Your task to perform on an android device: see tabs open on other devices in the chrome app Image 0: 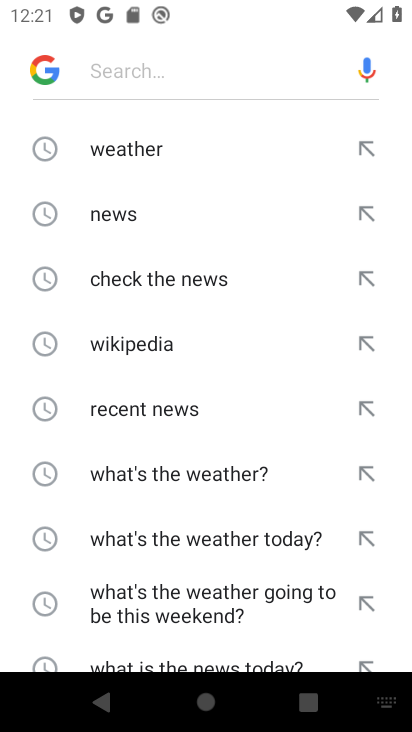
Step 0: press back button
Your task to perform on an android device: see tabs open on other devices in the chrome app Image 1: 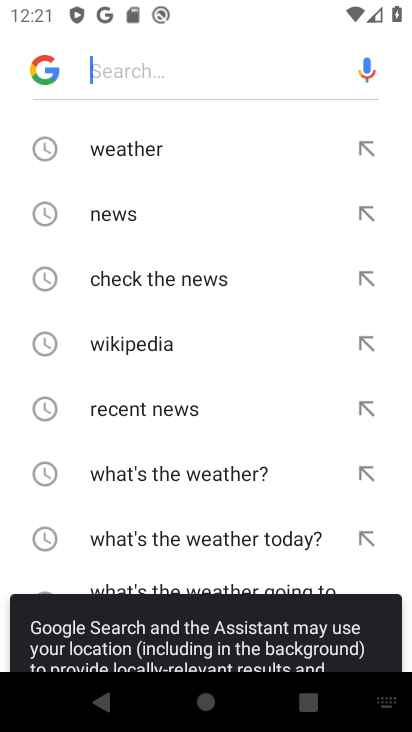
Step 1: press back button
Your task to perform on an android device: see tabs open on other devices in the chrome app Image 2: 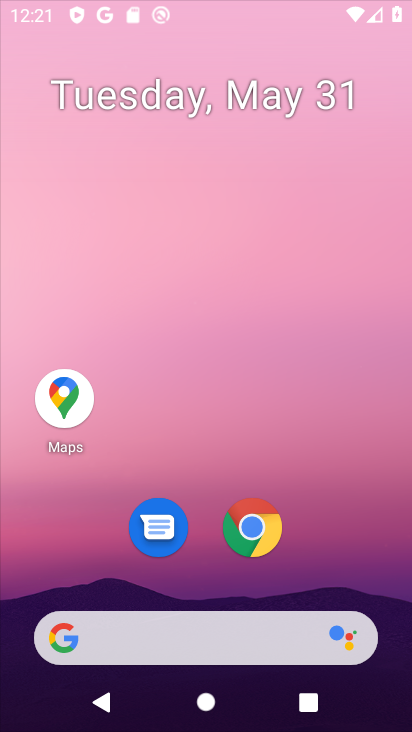
Step 2: press back button
Your task to perform on an android device: see tabs open on other devices in the chrome app Image 3: 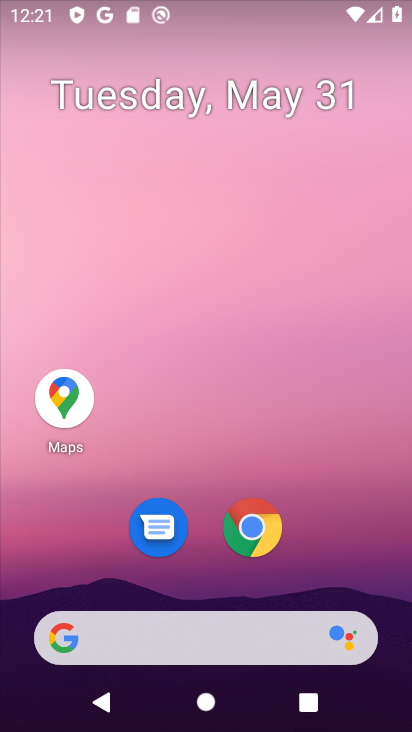
Step 3: press home button
Your task to perform on an android device: see tabs open on other devices in the chrome app Image 4: 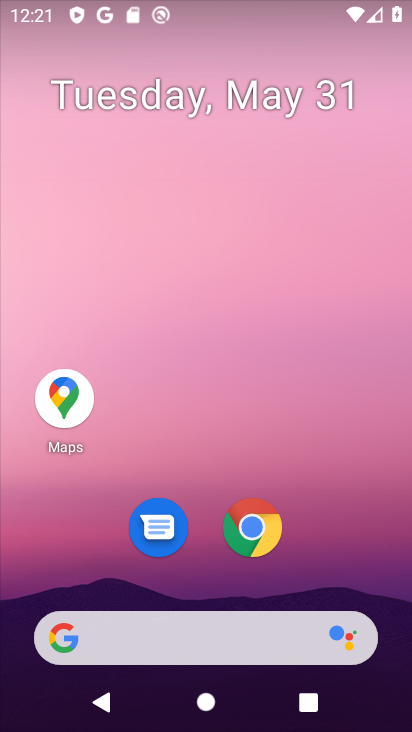
Step 4: press home button
Your task to perform on an android device: see tabs open on other devices in the chrome app Image 5: 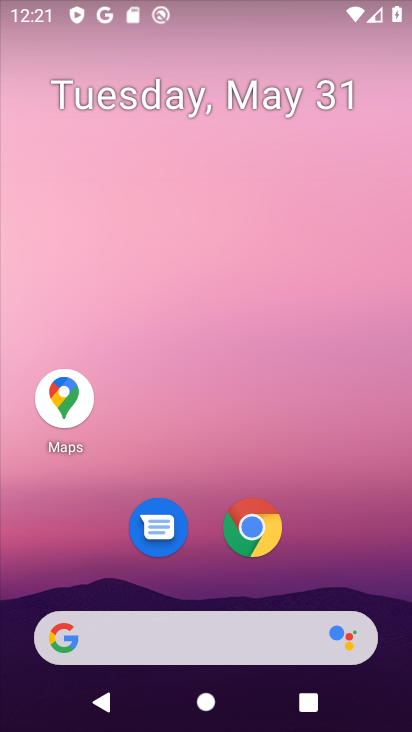
Step 5: press home button
Your task to perform on an android device: see tabs open on other devices in the chrome app Image 6: 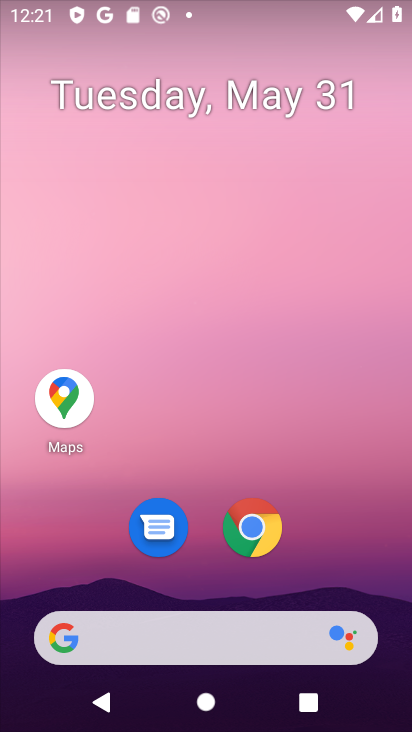
Step 6: drag from (228, 638) to (103, 107)
Your task to perform on an android device: see tabs open on other devices in the chrome app Image 7: 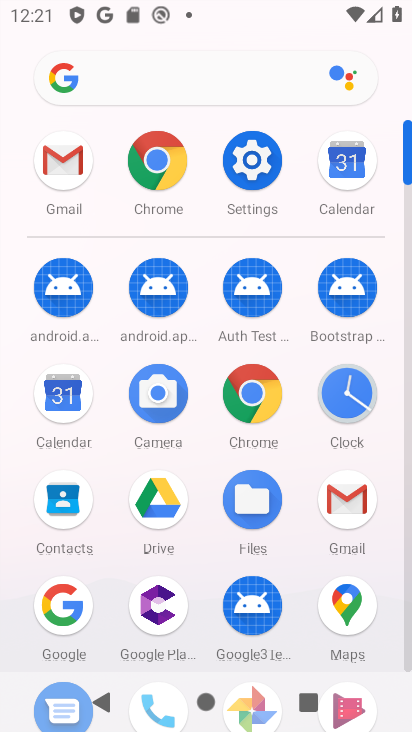
Step 7: click (260, 385)
Your task to perform on an android device: see tabs open on other devices in the chrome app Image 8: 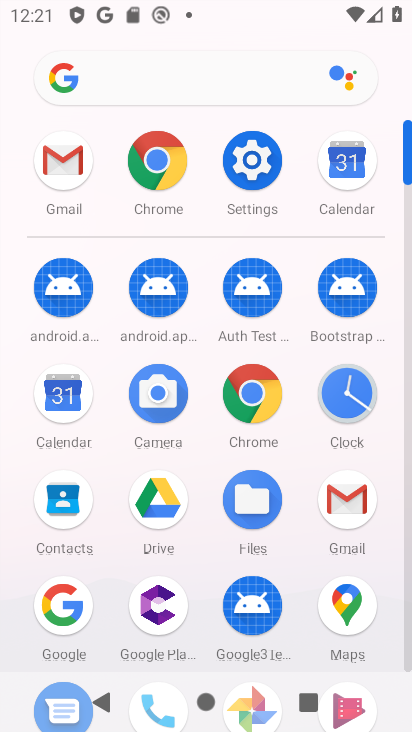
Step 8: click (259, 388)
Your task to perform on an android device: see tabs open on other devices in the chrome app Image 9: 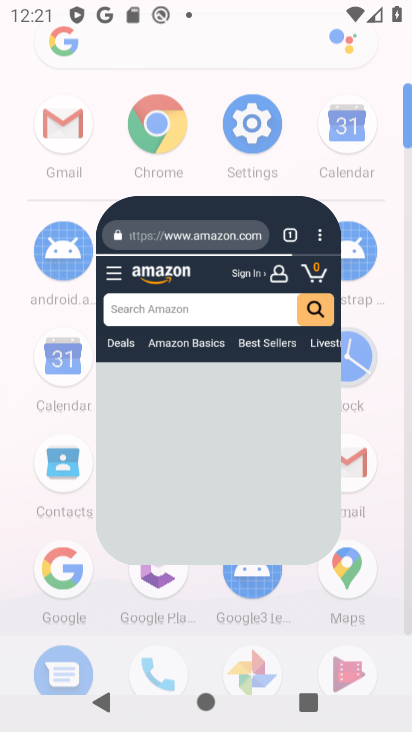
Step 9: click (260, 387)
Your task to perform on an android device: see tabs open on other devices in the chrome app Image 10: 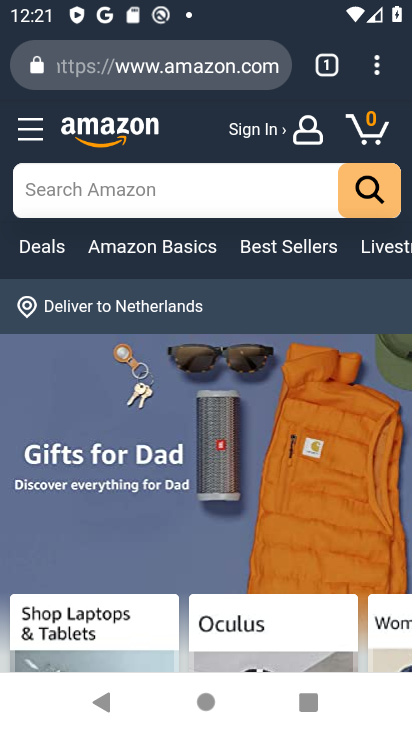
Step 10: drag from (381, 56) to (141, 304)
Your task to perform on an android device: see tabs open on other devices in the chrome app Image 11: 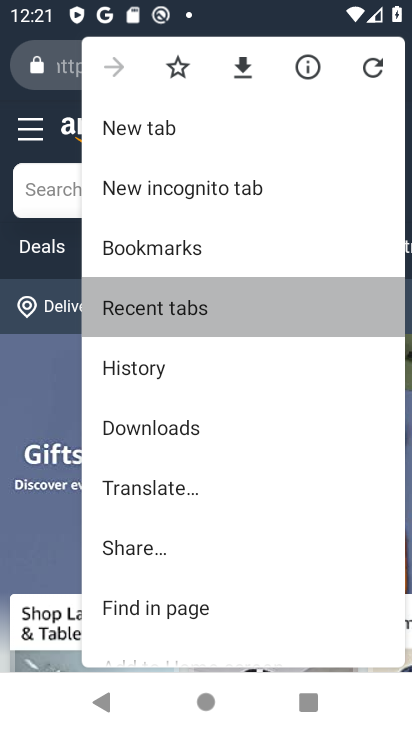
Step 11: click (141, 304)
Your task to perform on an android device: see tabs open on other devices in the chrome app Image 12: 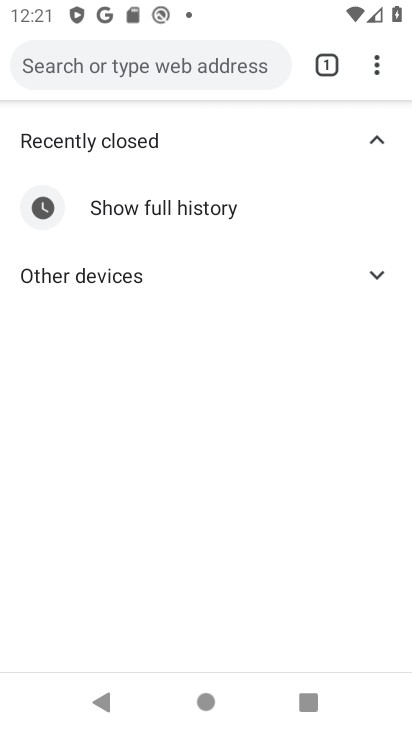
Step 12: task complete